Your task to perform on an android device: What's the weather going to be this weekend? Image 0: 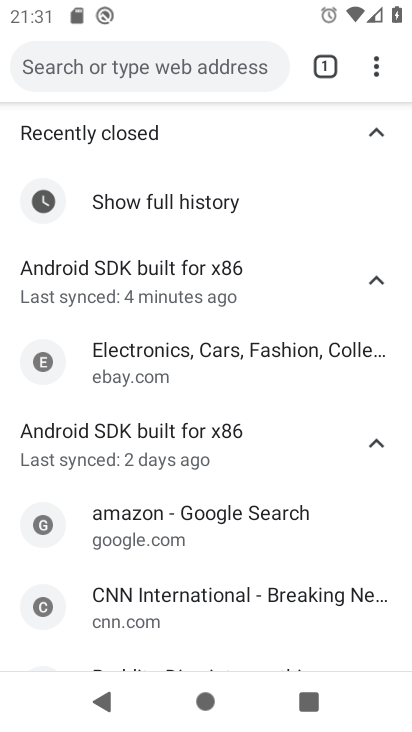
Step 0: press home button
Your task to perform on an android device: What's the weather going to be this weekend? Image 1: 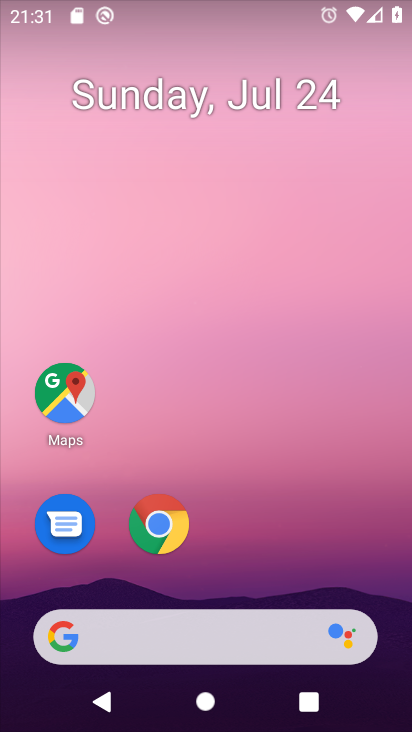
Step 1: click (182, 637)
Your task to perform on an android device: What's the weather going to be this weekend? Image 2: 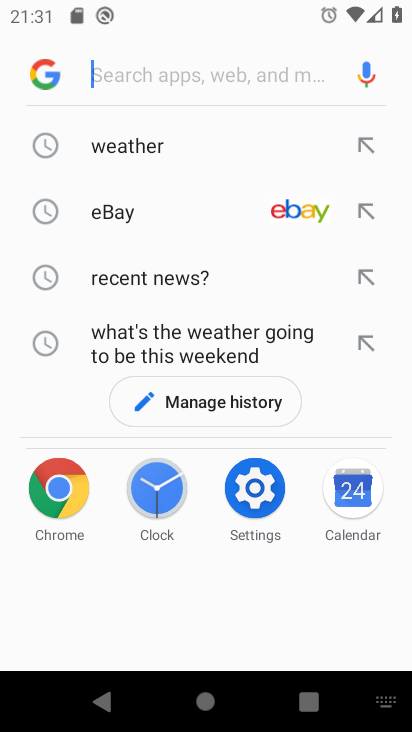
Step 2: click (159, 145)
Your task to perform on an android device: What's the weather going to be this weekend? Image 3: 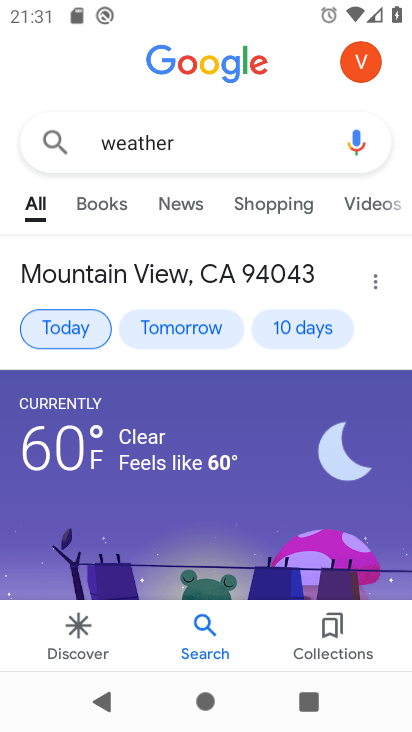
Step 3: click (307, 328)
Your task to perform on an android device: What's the weather going to be this weekend? Image 4: 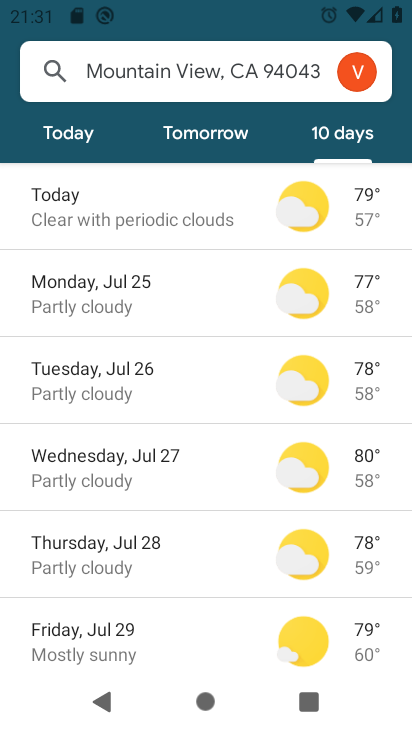
Step 4: drag from (163, 607) to (194, 373)
Your task to perform on an android device: What's the weather going to be this weekend? Image 5: 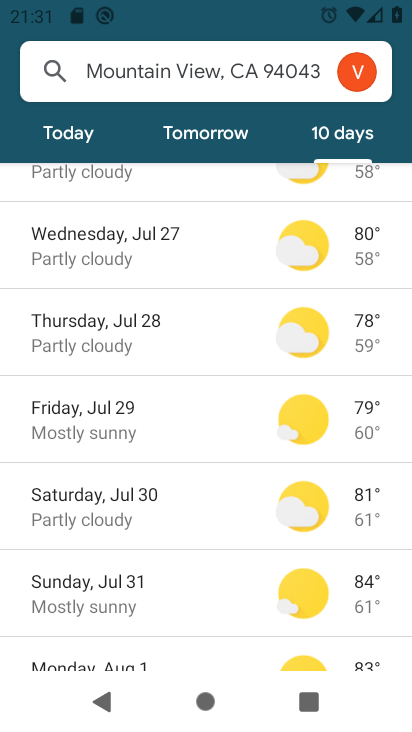
Step 5: click (125, 502)
Your task to perform on an android device: What's the weather going to be this weekend? Image 6: 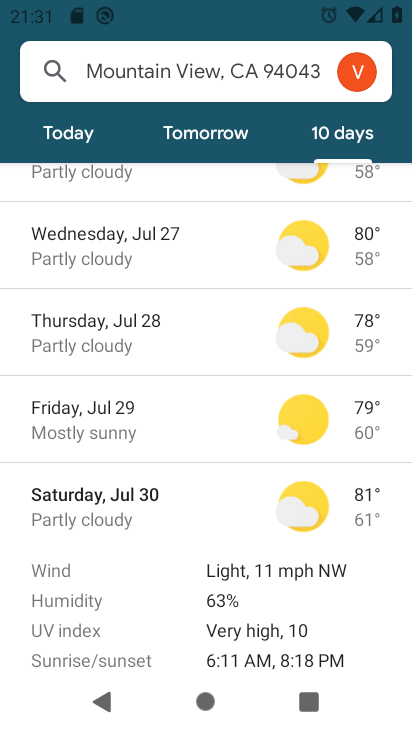
Step 6: task complete